Your task to perform on an android device: turn on improve location accuracy Image 0: 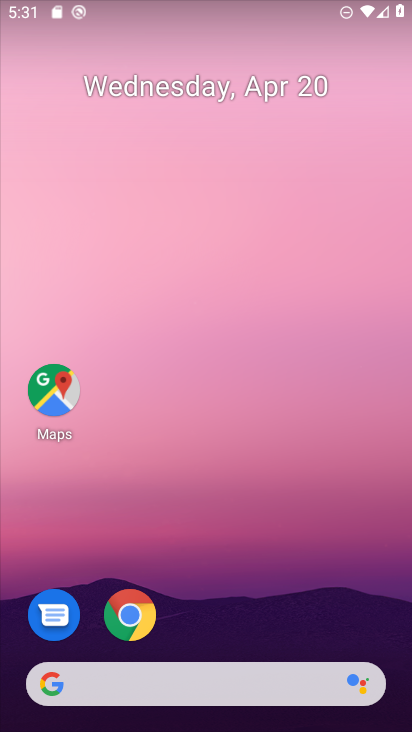
Step 0: drag from (229, 637) to (193, 120)
Your task to perform on an android device: turn on improve location accuracy Image 1: 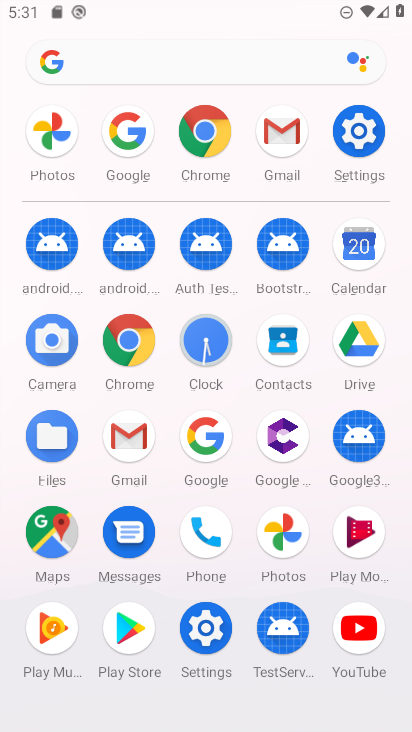
Step 1: click (351, 138)
Your task to perform on an android device: turn on improve location accuracy Image 2: 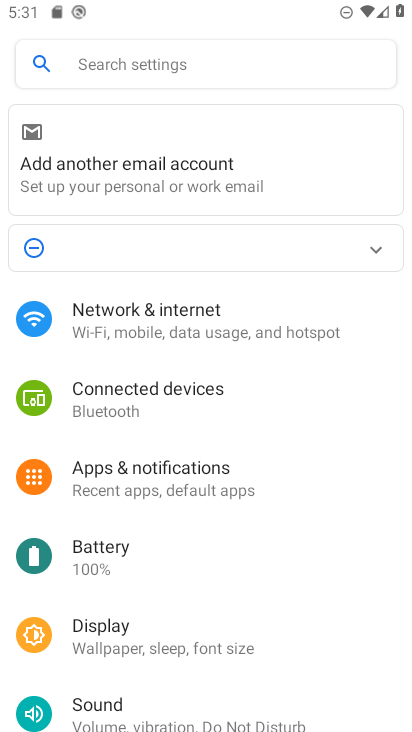
Step 2: drag from (219, 696) to (220, 321)
Your task to perform on an android device: turn on improve location accuracy Image 3: 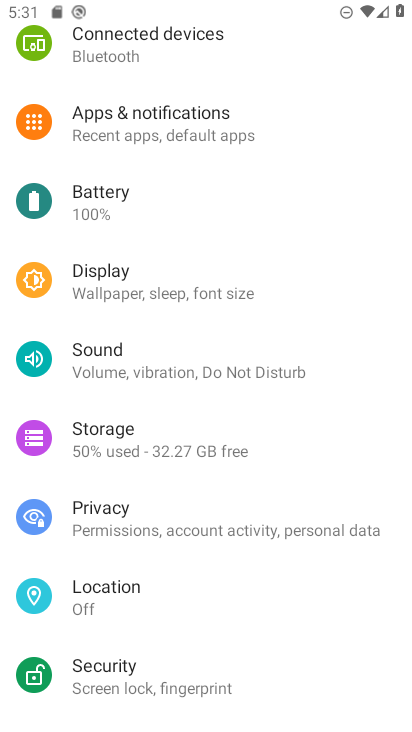
Step 3: click (160, 601)
Your task to perform on an android device: turn on improve location accuracy Image 4: 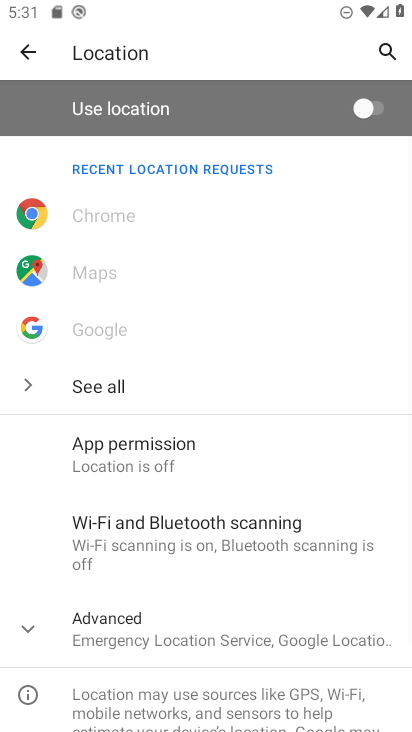
Step 4: drag from (274, 617) to (259, 277)
Your task to perform on an android device: turn on improve location accuracy Image 5: 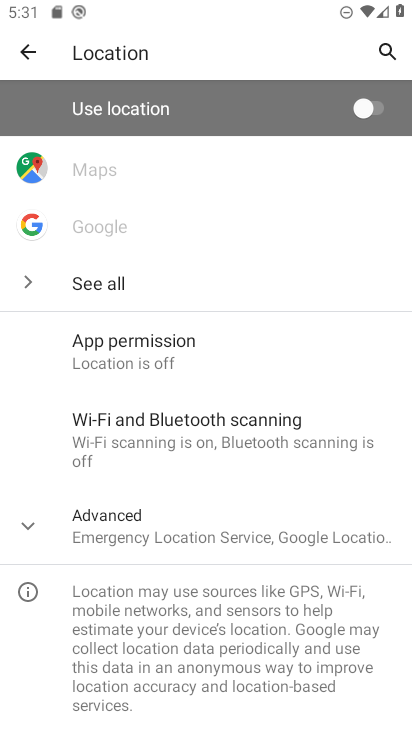
Step 5: click (225, 528)
Your task to perform on an android device: turn on improve location accuracy Image 6: 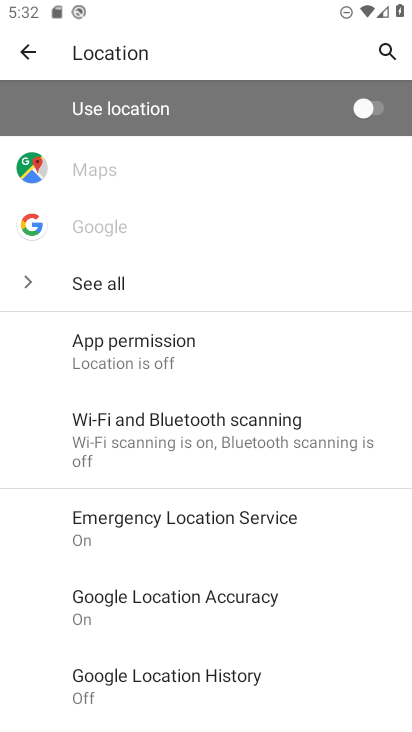
Step 6: task complete